Your task to perform on an android device: add a contact in the contacts app Image 0: 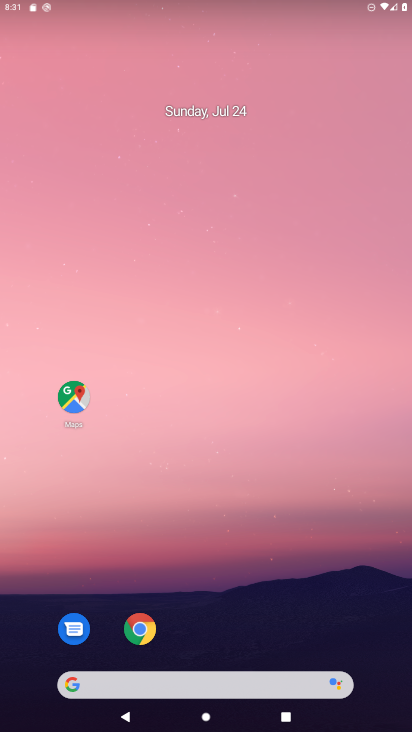
Step 0: drag from (360, 601) to (177, 25)
Your task to perform on an android device: add a contact in the contacts app Image 1: 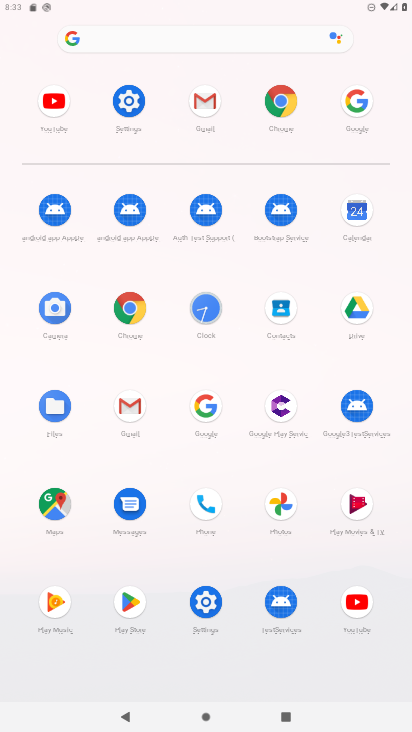
Step 1: click (279, 314)
Your task to perform on an android device: add a contact in the contacts app Image 2: 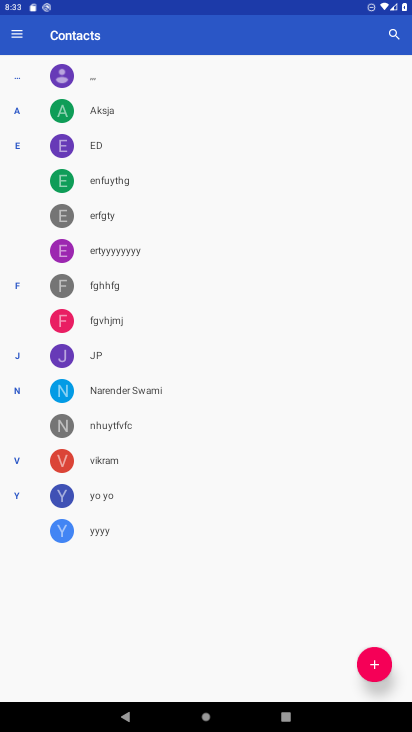
Step 2: click (377, 660)
Your task to perform on an android device: add a contact in the contacts app Image 3: 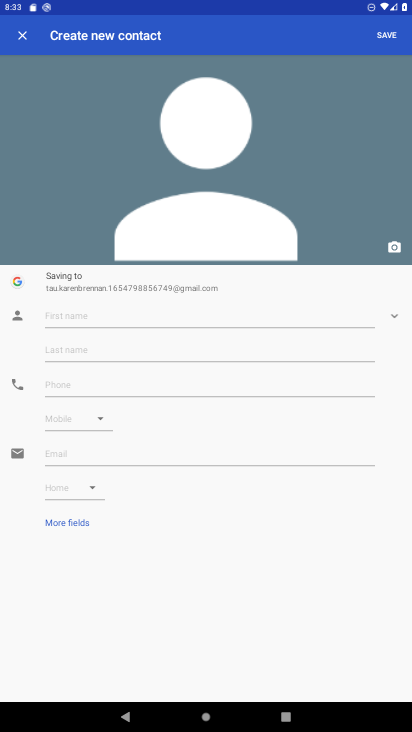
Step 3: click (82, 312)
Your task to perform on an android device: add a contact in the contacts app Image 4: 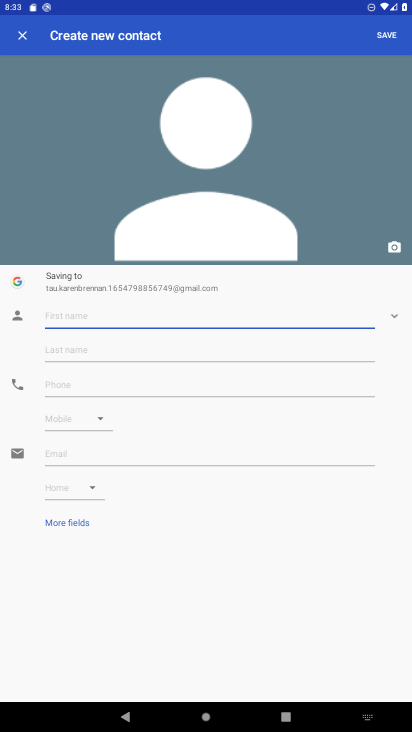
Step 4: type "nitesh"
Your task to perform on an android device: add a contact in the contacts app Image 5: 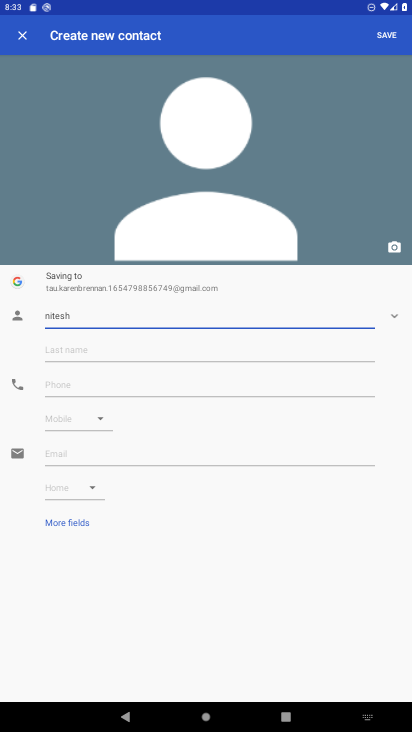
Step 5: click (396, 35)
Your task to perform on an android device: add a contact in the contacts app Image 6: 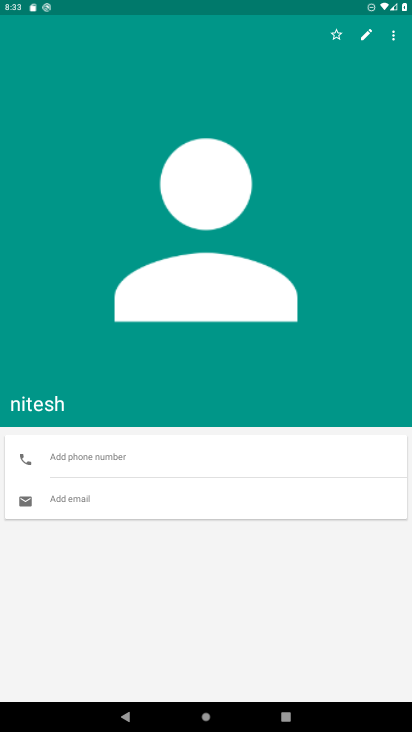
Step 6: task complete